Your task to perform on an android device: Clear the shopping cart on newegg.com. Add logitech g910 to the cart on newegg.com Image 0: 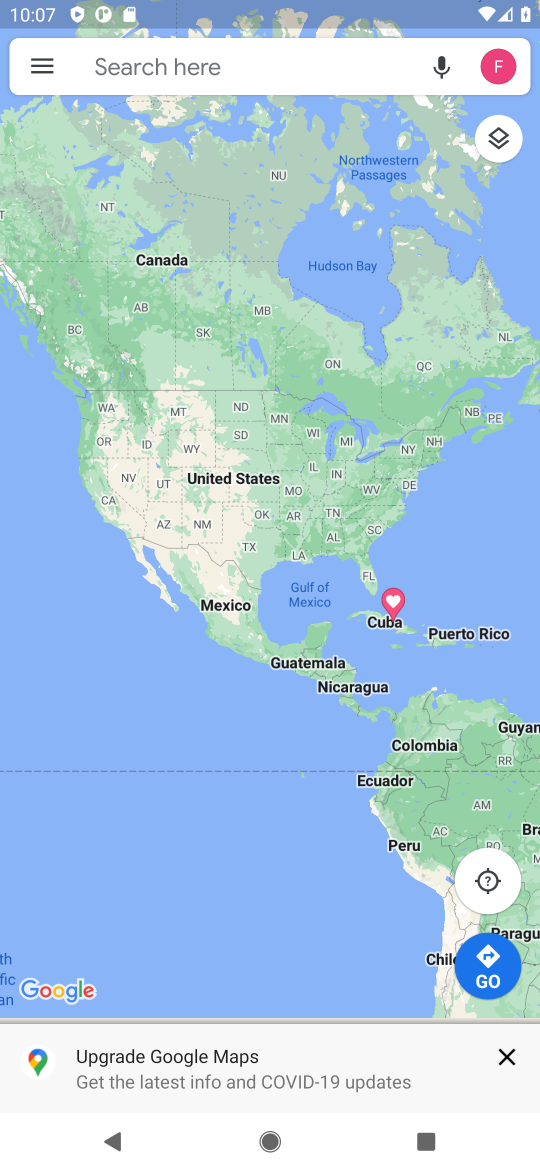
Step 0: press home button
Your task to perform on an android device: Clear the shopping cart on newegg.com. Add logitech g910 to the cart on newegg.com Image 1: 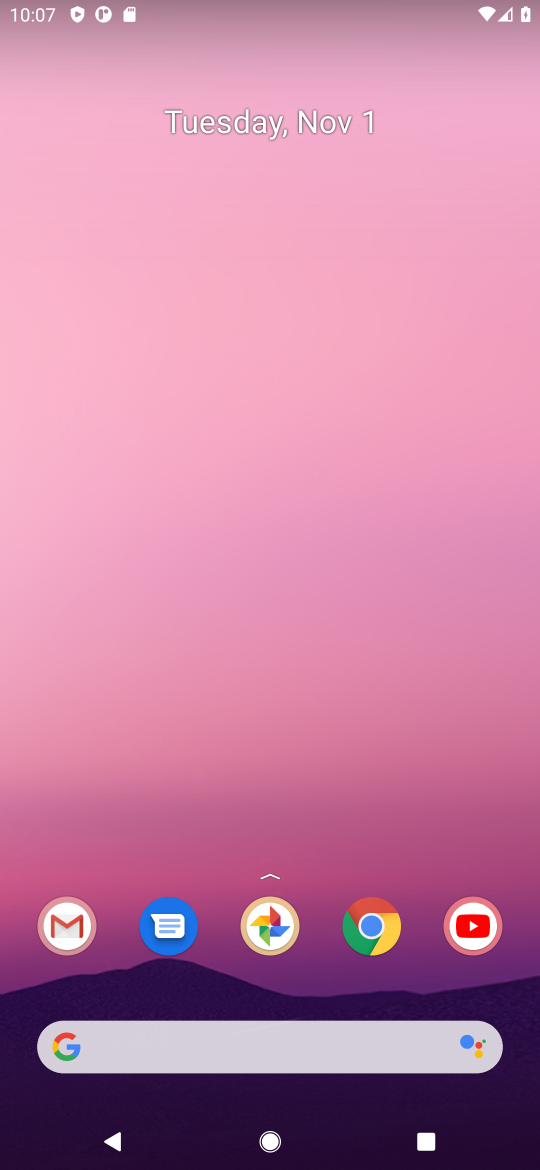
Step 1: click (369, 924)
Your task to perform on an android device: Clear the shopping cart on newegg.com. Add logitech g910 to the cart on newegg.com Image 2: 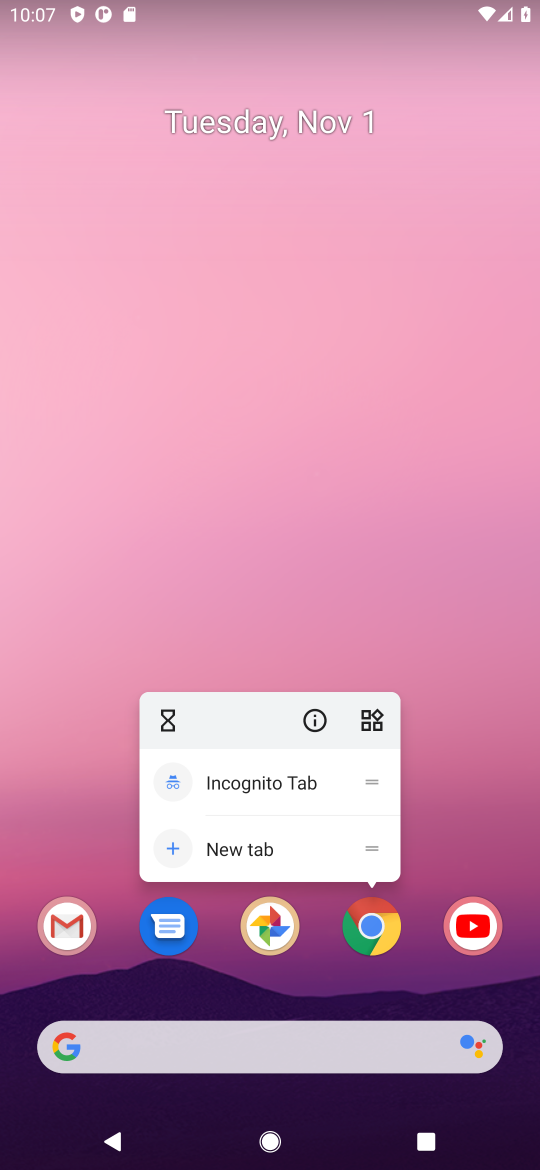
Step 2: click (366, 937)
Your task to perform on an android device: Clear the shopping cart on newegg.com. Add logitech g910 to the cart on newegg.com Image 3: 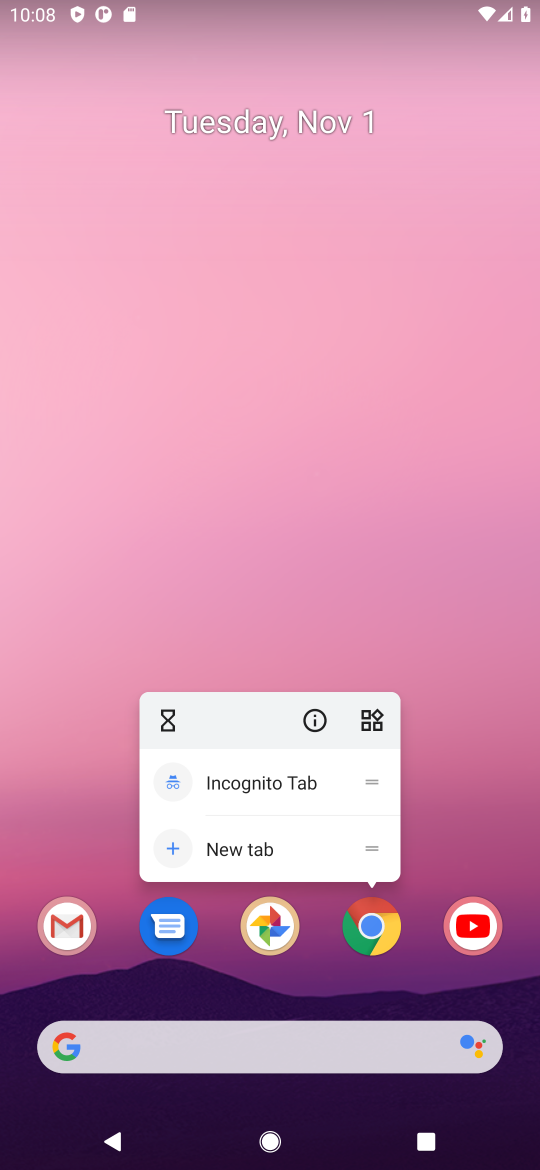
Step 3: click (379, 927)
Your task to perform on an android device: Clear the shopping cart on newegg.com. Add logitech g910 to the cart on newegg.com Image 4: 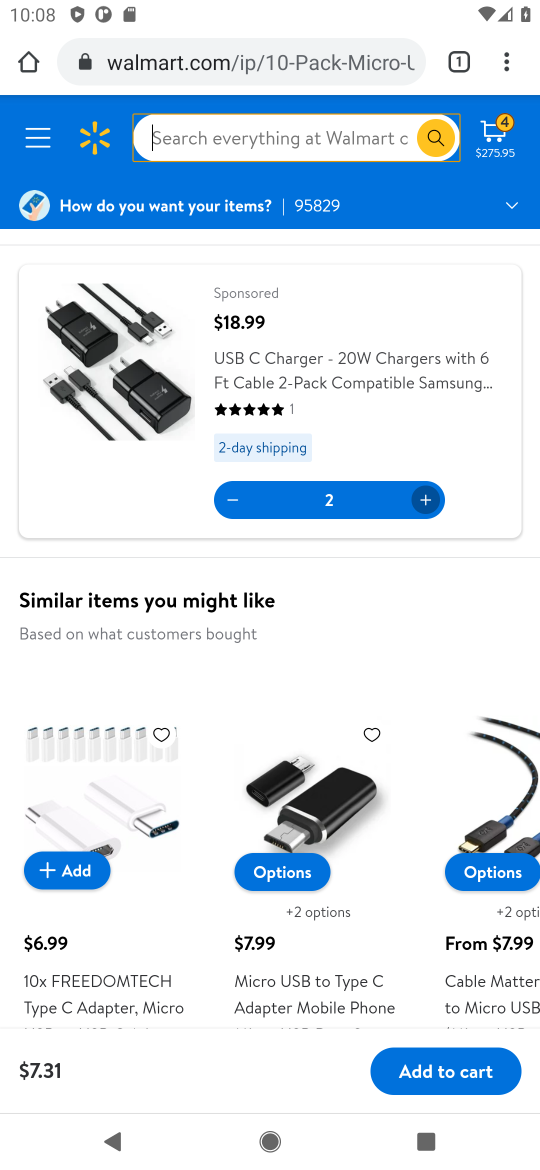
Step 4: click (260, 64)
Your task to perform on an android device: Clear the shopping cart on newegg.com. Add logitech g910 to the cart on newegg.com Image 5: 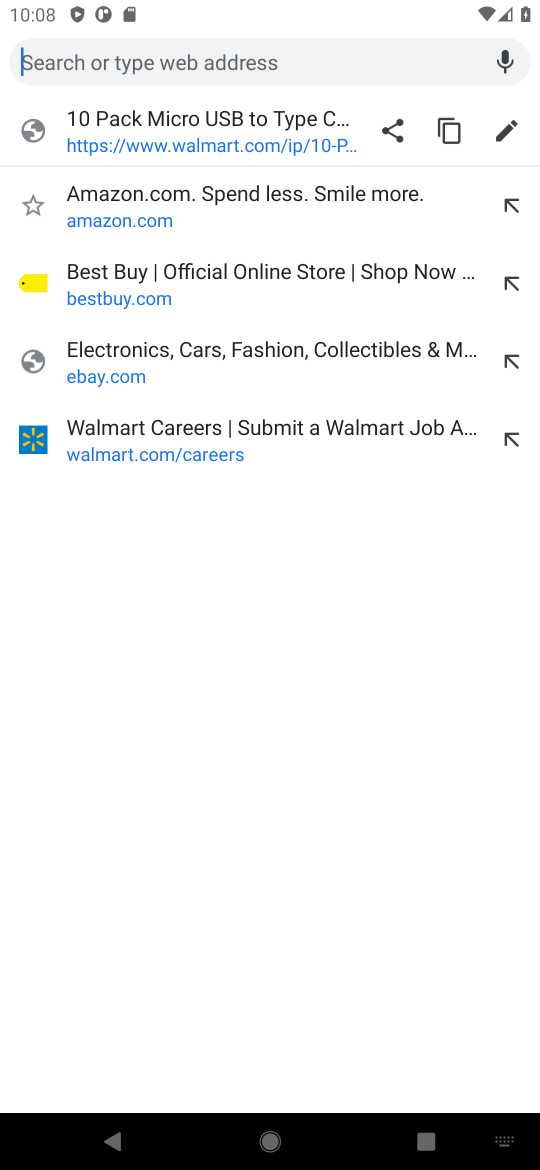
Step 5: type "newegg"
Your task to perform on an android device: Clear the shopping cart on newegg.com. Add logitech g910 to the cart on newegg.com Image 6: 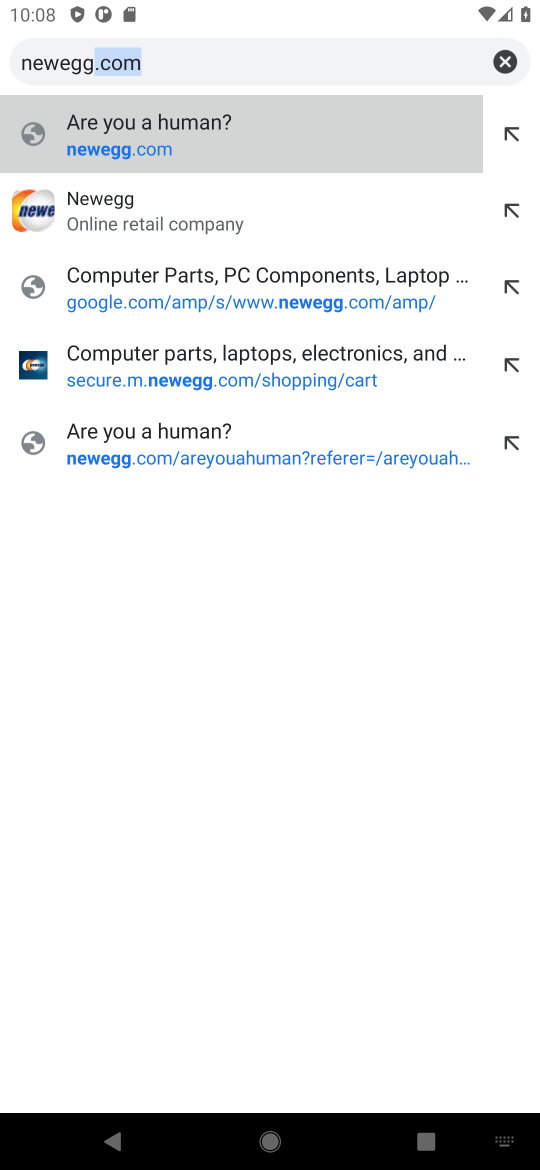
Step 6: click (75, 211)
Your task to perform on an android device: Clear the shopping cart on newegg.com. Add logitech g910 to the cart on newegg.com Image 7: 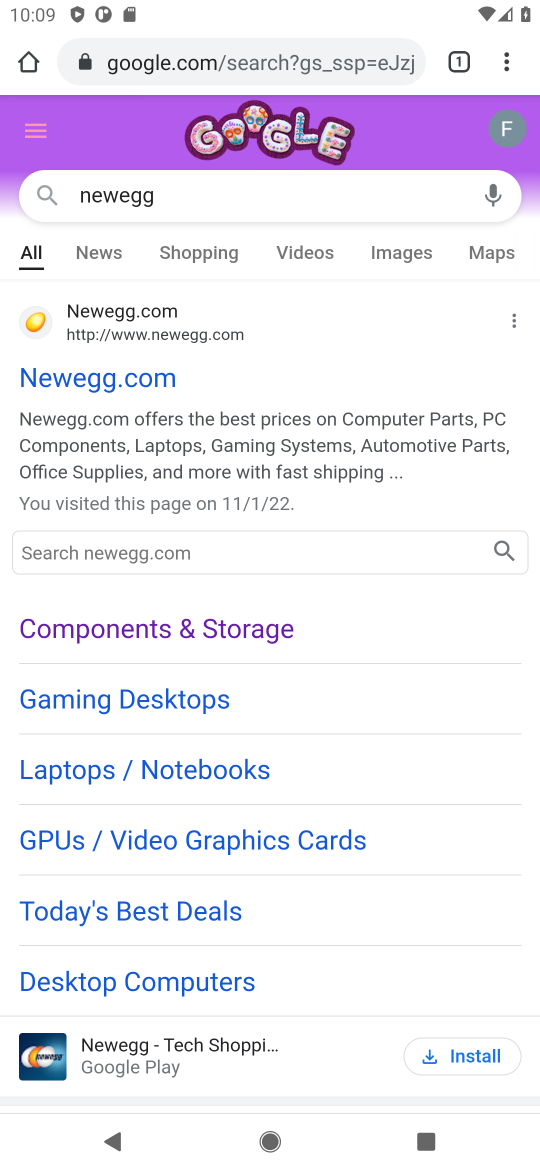
Step 7: drag from (127, 709) to (271, 238)
Your task to perform on an android device: Clear the shopping cart on newegg.com. Add logitech g910 to the cart on newegg.com Image 8: 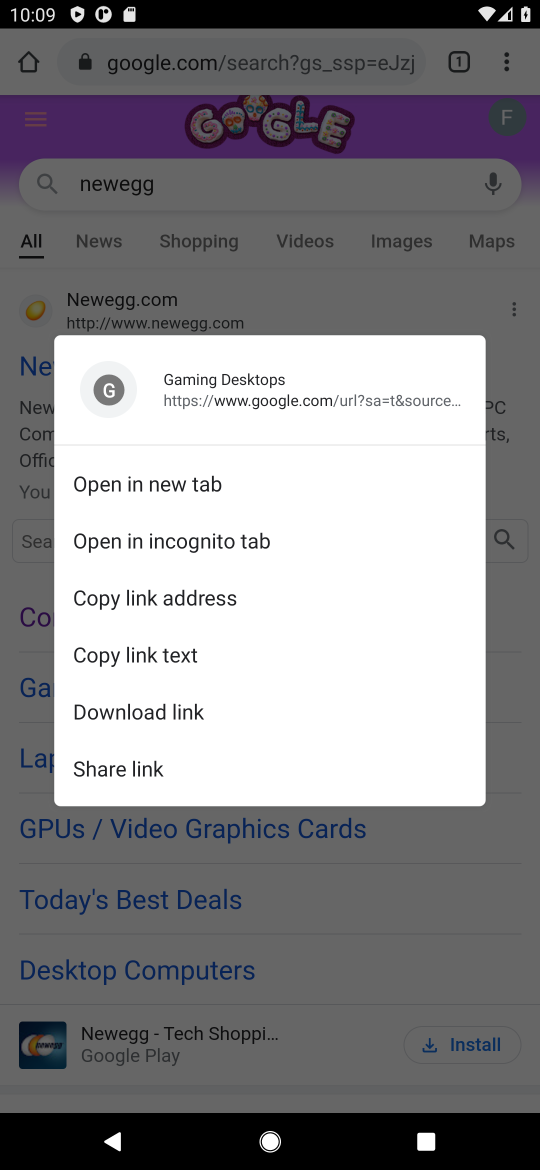
Step 8: drag from (95, 984) to (142, 420)
Your task to perform on an android device: Clear the shopping cart on newegg.com. Add logitech g910 to the cart on newegg.com Image 9: 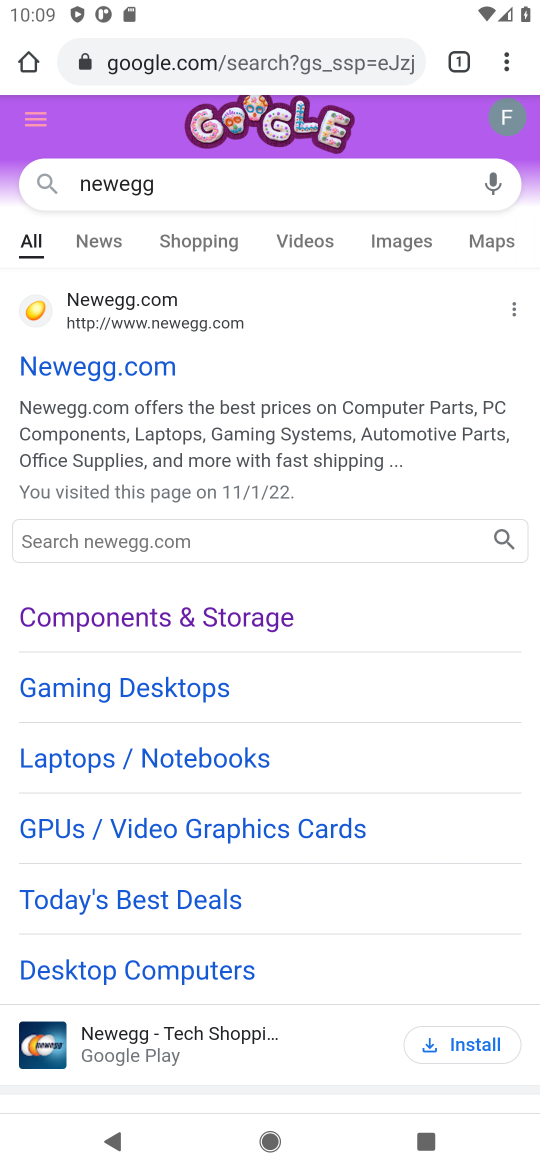
Step 9: drag from (75, 932) to (171, 550)
Your task to perform on an android device: Clear the shopping cart on newegg.com. Add logitech g910 to the cart on newegg.com Image 10: 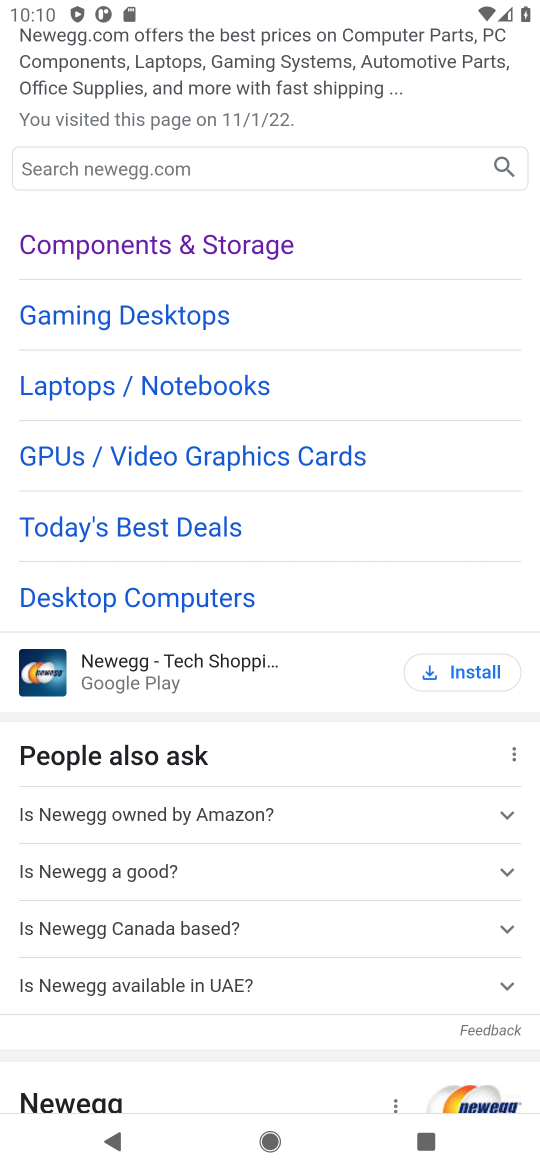
Step 10: click (55, 1109)
Your task to perform on an android device: Clear the shopping cart on newegg.com. Add logitech g910 to the cart on newegg.com Image 11: 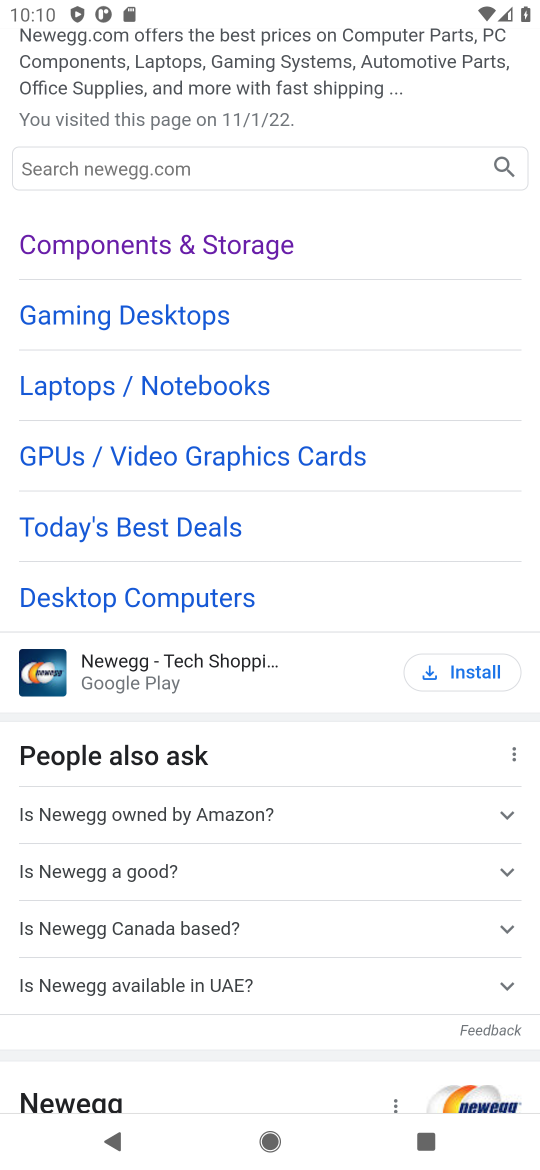
Step 11: drag from (129, 1039) to (180, 452)
Your task to perform on an android device: Clear the shopping cart on newegg.com. Add logitech g910 to the cart on newegg.com Image 12: 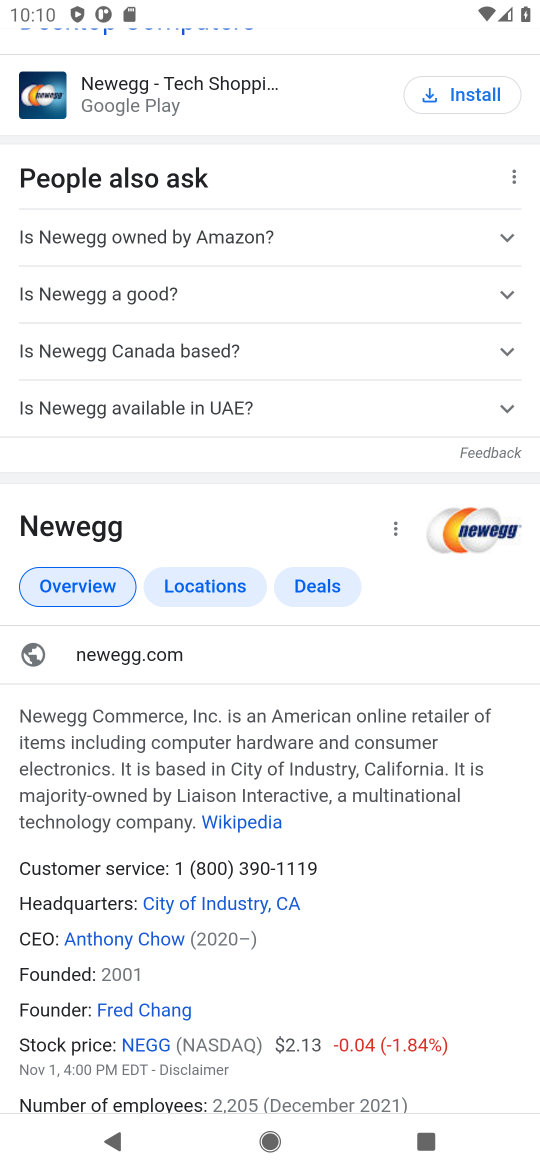
Step 12: click (84, 1028)
Your task to perform on an android device: Clear the shopping cart on newegg.com. Add logitech g910 to the cart on newegg.com Image 13: 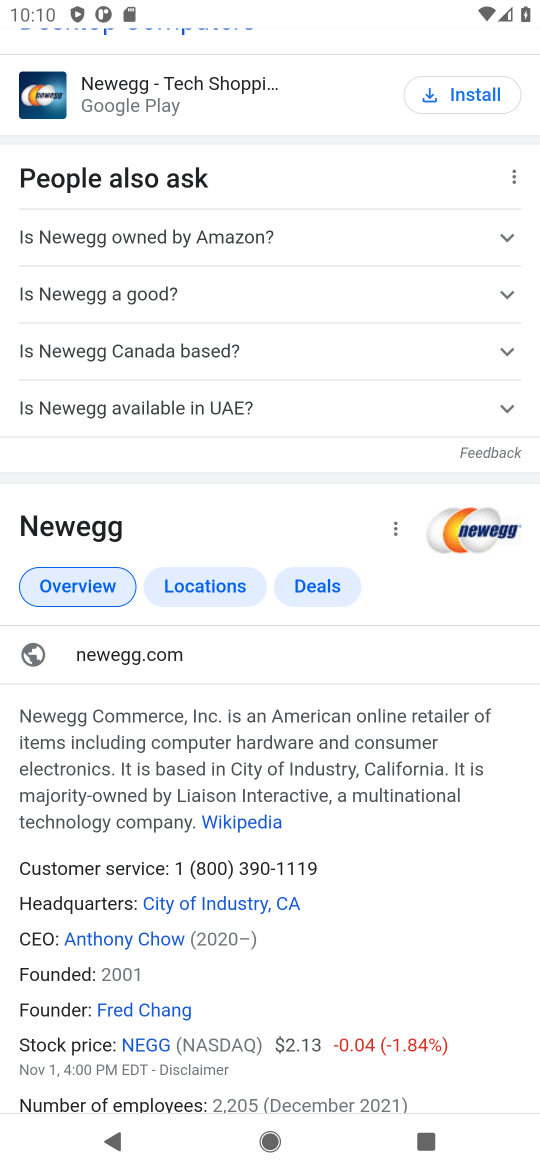
Step 13: click (69, 516)
Your task to perform on an android device: Clear the shopping cart on newegg.com. Add logitech g910 to the cart on newegg.com Image 14: 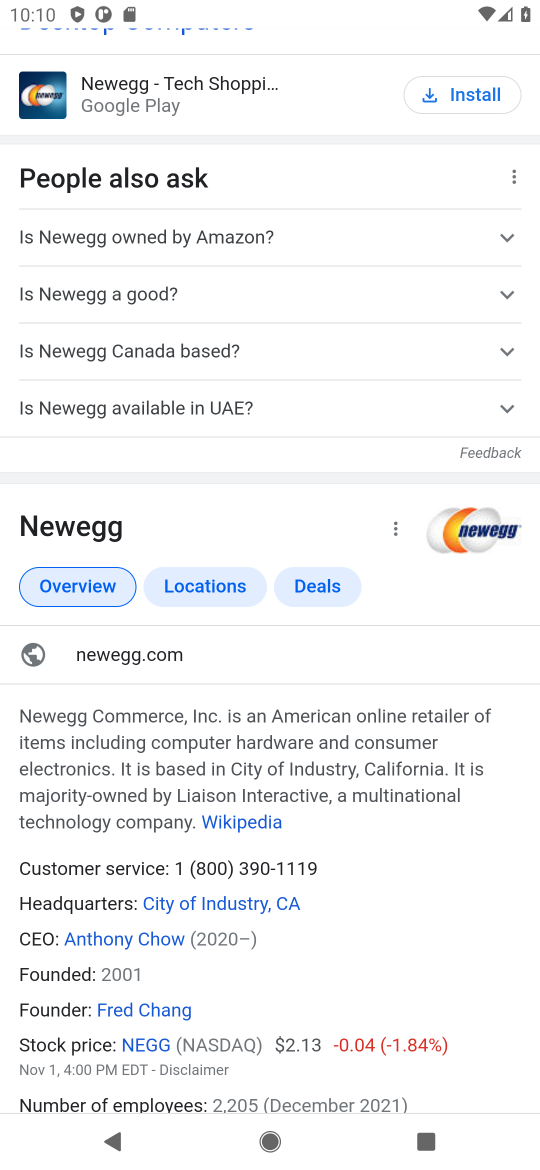
Step 14: click (80, 529)
Your task to perform on an android device: Clear the shopping cart on newegg.com. Add logitech g910 to the cart on newegg.com Image 15: 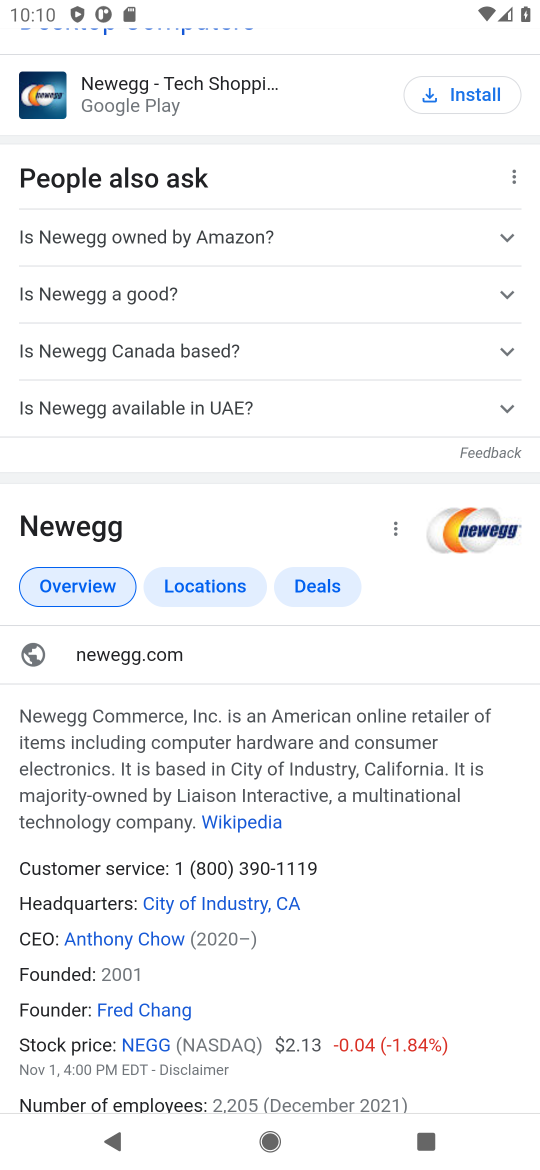
Step 15: drag from (204, 354) to (177, 1020)
Your task to perform on an android device: Clear the shopping cart on newegg.com. Add logitech g910 to the cart on newegg.com Image 16: 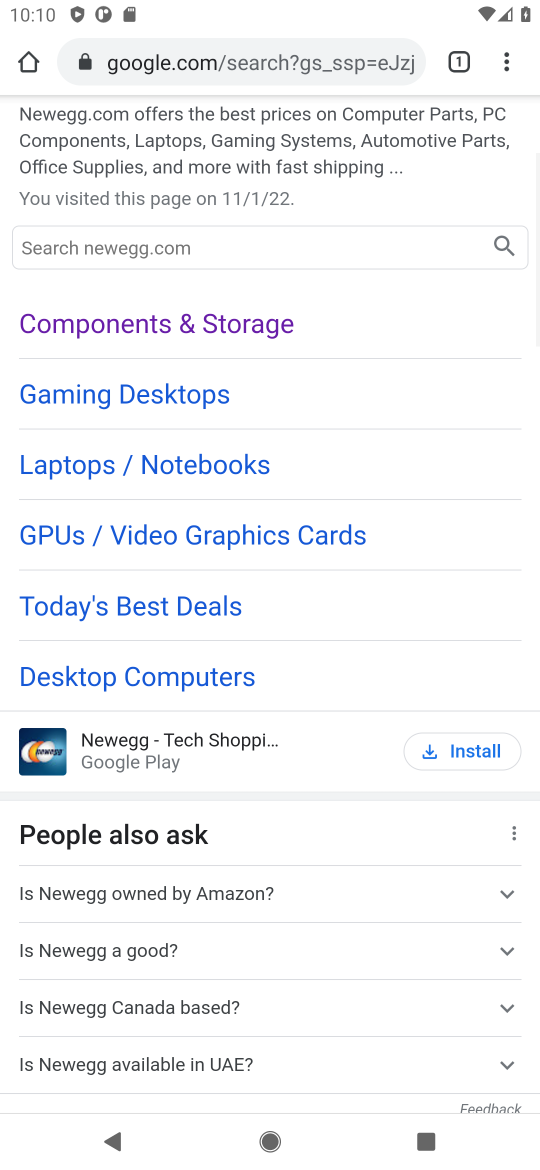
Step 16: drag from (194, 163) to (140, 759)
Your task to perform on an android device: Clear the shopping cart on newegg.com. Add logitech g910 to the cart on newegg.com Image 17: 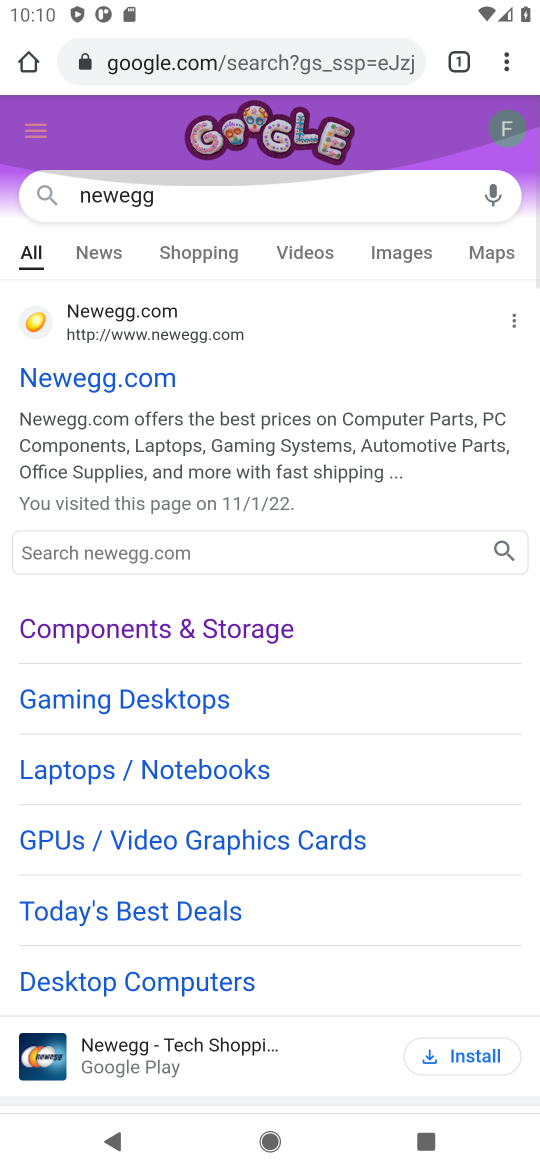
Step 17: drag from (249, 185) to (211, 710)
Your task to perform on an android device: Clear the shopping cart on newegg.com. Add logitech g910 to the cart on newegg.com Image 18: 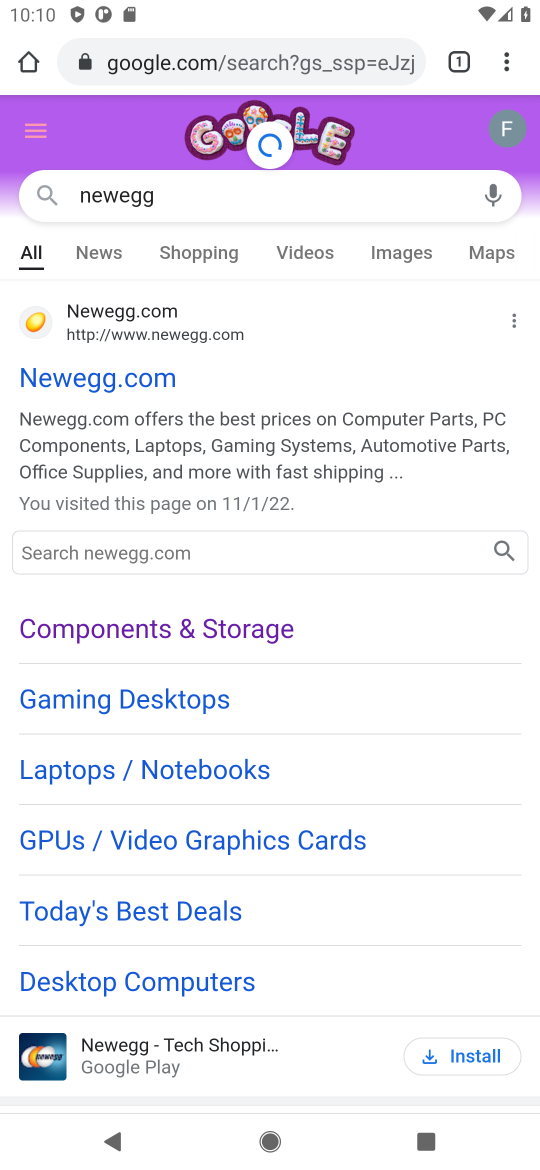
Step 18: drag from (182, 324) to (191, 682)
Your task to perform on an android device: Clear the shopping cart on newegg.com. Add logitech g910 to the cart on newegg.com Image 19: 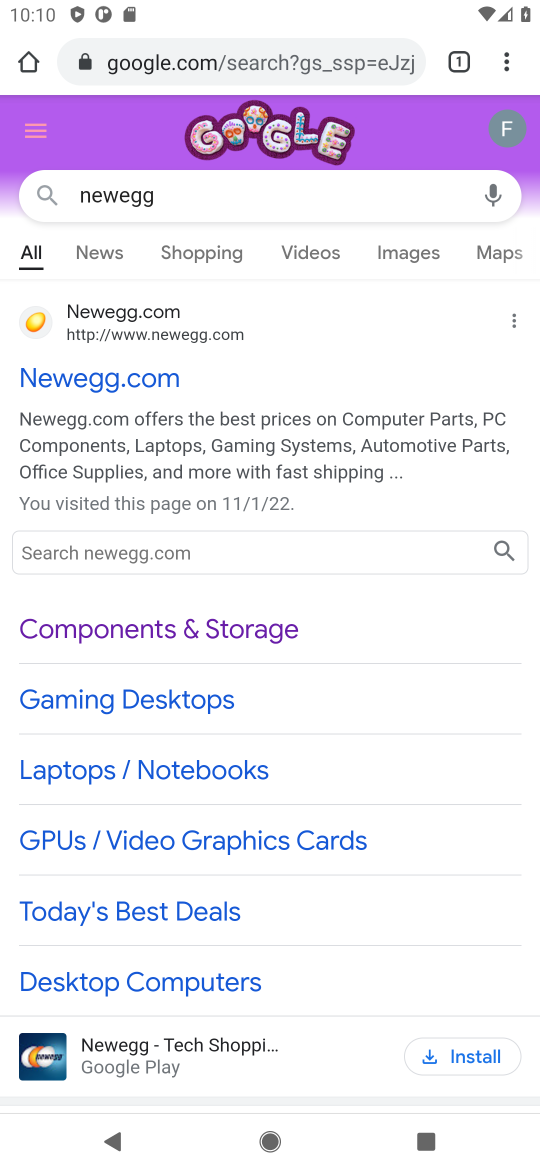
Step 19: click (55, 381)
Your task to perform on an android device: Clear the shopping cart on newegg.com. Add logitech g910 to the cart on newegg.com Image 20: 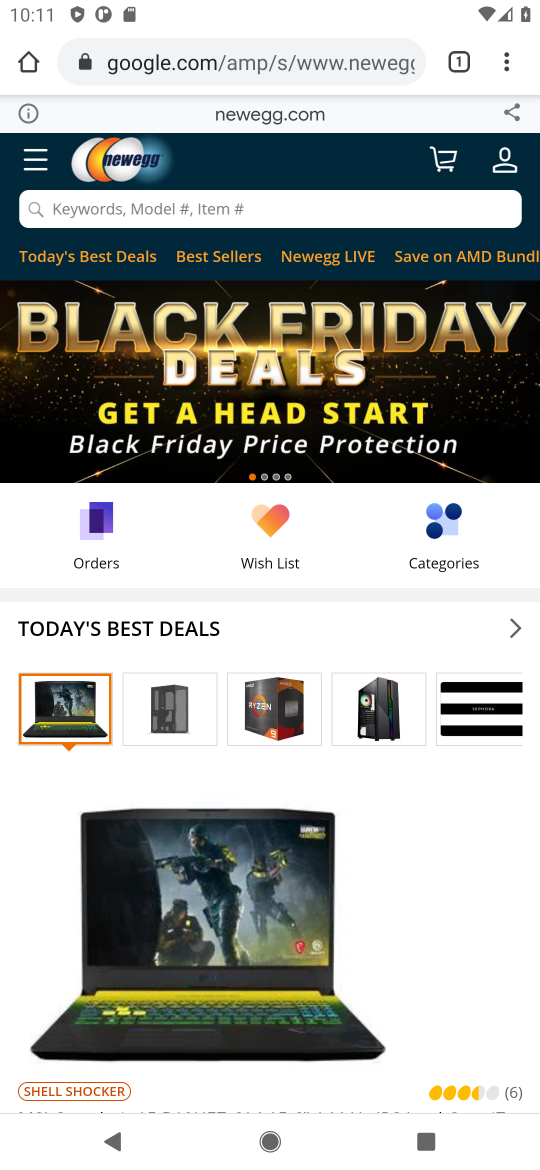
Step 20: click (454, 161)
Your task to perform on an android device: Clear the shopping cart on newegg.com. Add logitech g910 to the cart on newegg.com Image 21: 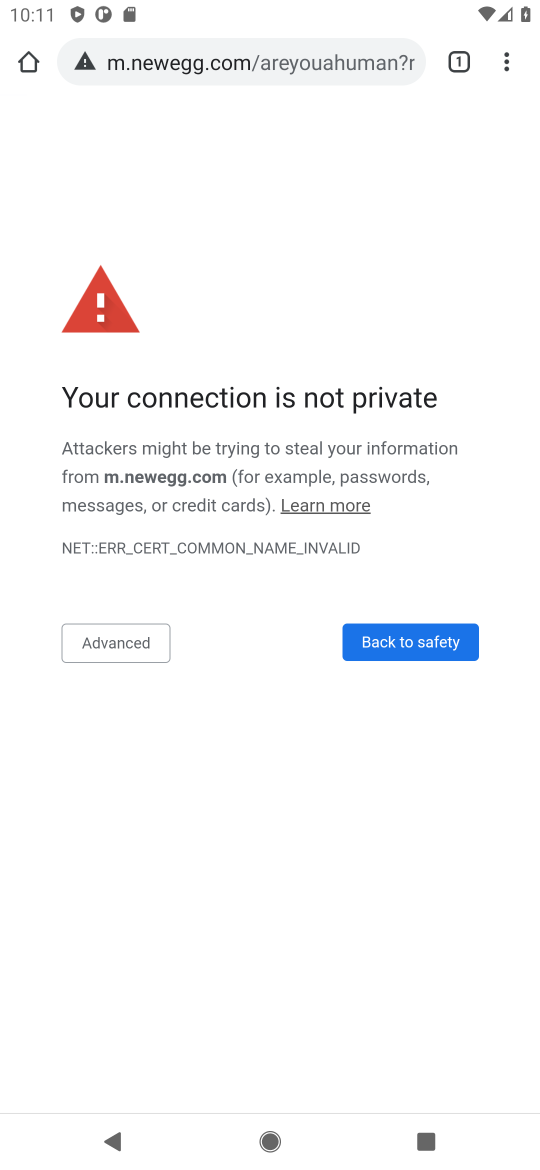
Step 21: task complete